Your task to perform on an android device: toggle notification dots Image 0: 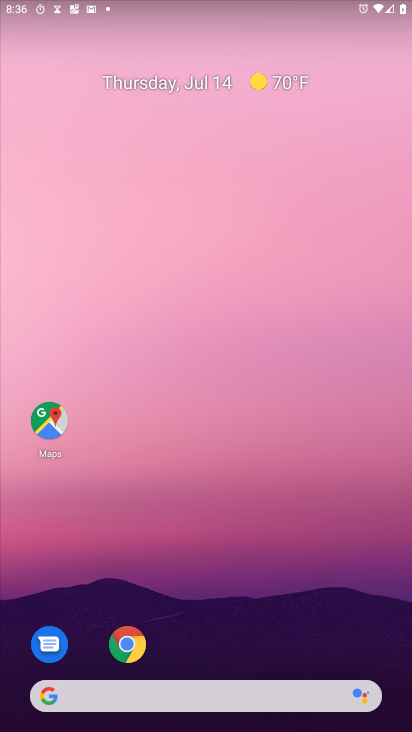
Step 0: drag from (195, 697) to (323, 92)
Your task to perform on an android device: toggle notification dots Image 1: 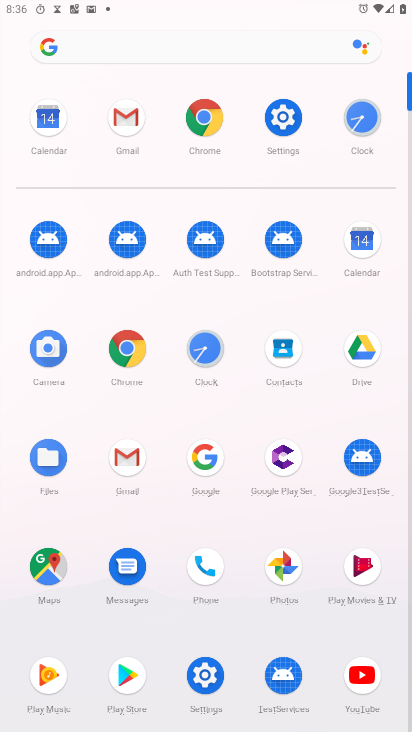
Step 1: click (284, 120)
Your task to perform on an android device: toggle notification dots Image 2: 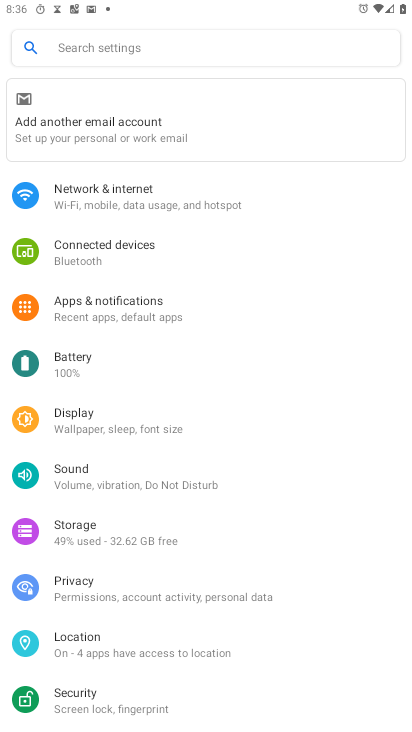
Step 2: click (140, 303)
Your task to perform on an android device: toggle notification dots Image 3: 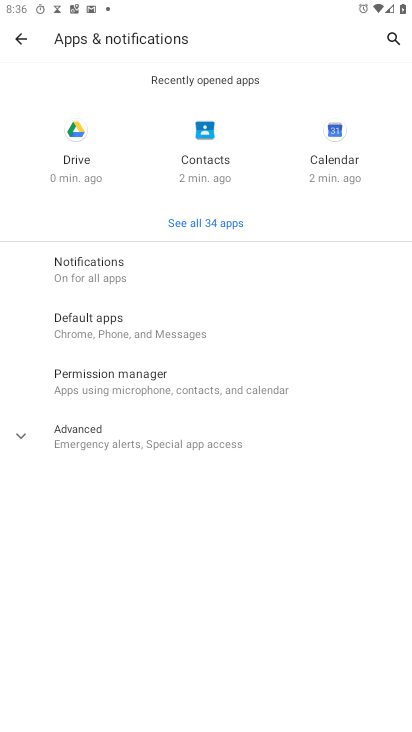
Step 3: click (115, 281)
Your task to perform on an android device: toggle notification dots Image 4: 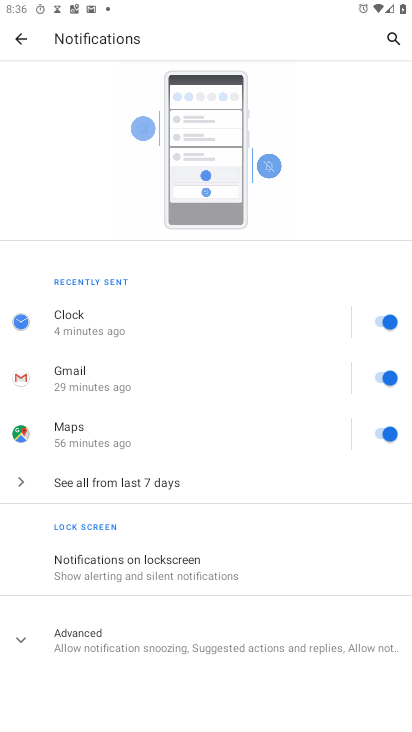
Step 4: click (237, 640)
Your task to perform on an android device: toggle notification dots Image 5: 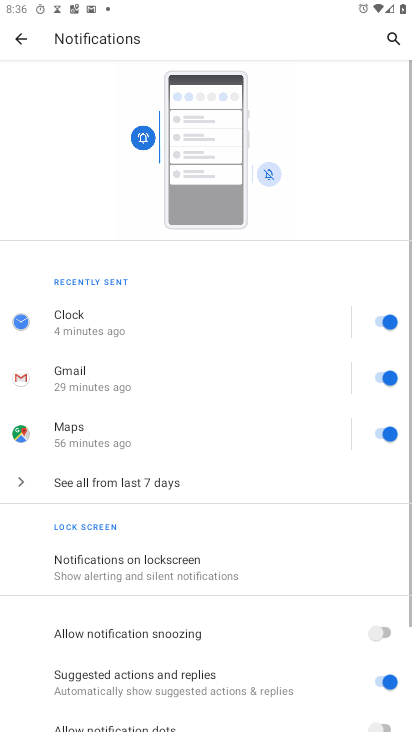
Step 5: drag from (288, 549) to (345, 54)
Your task to perform on an android device: toggle notification dots Image 6: 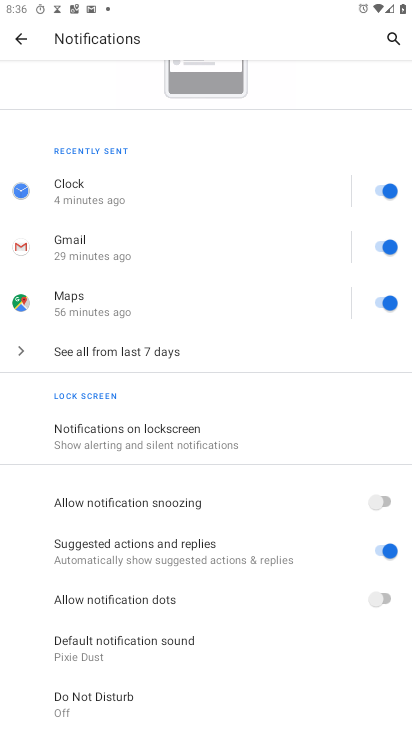
Step 6: click (386, 601)
Your task to perform on an android device: toggle notification dots Image 7: 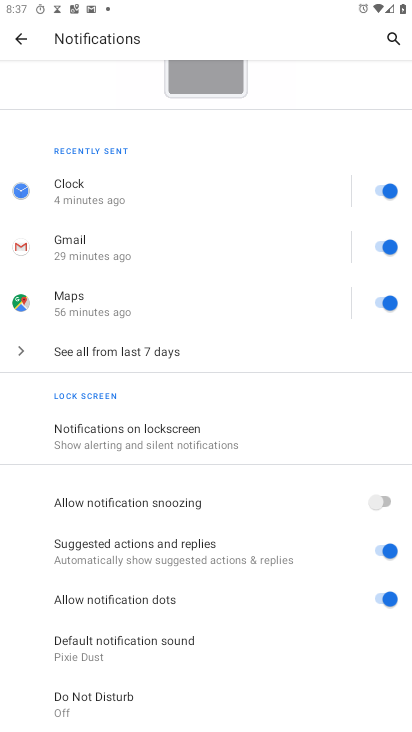
Step 7: task complete